Your task to perform on an android device: Open Android settings Image 0: 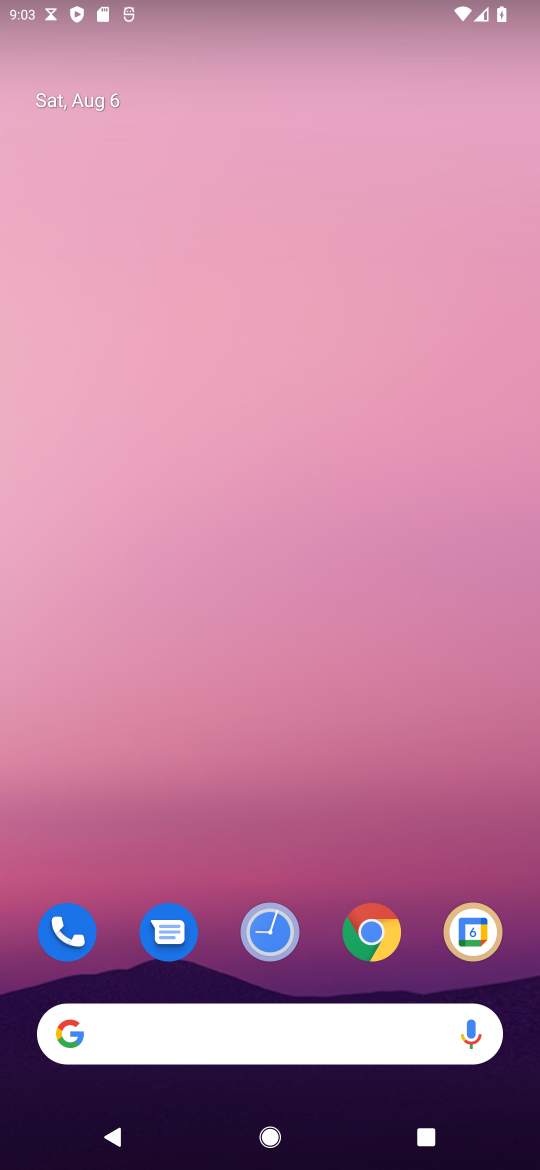
Step 0: drag from (229, 1040) to (254, 460)
Your task to perform on an android device: Open Android settings Image 1: 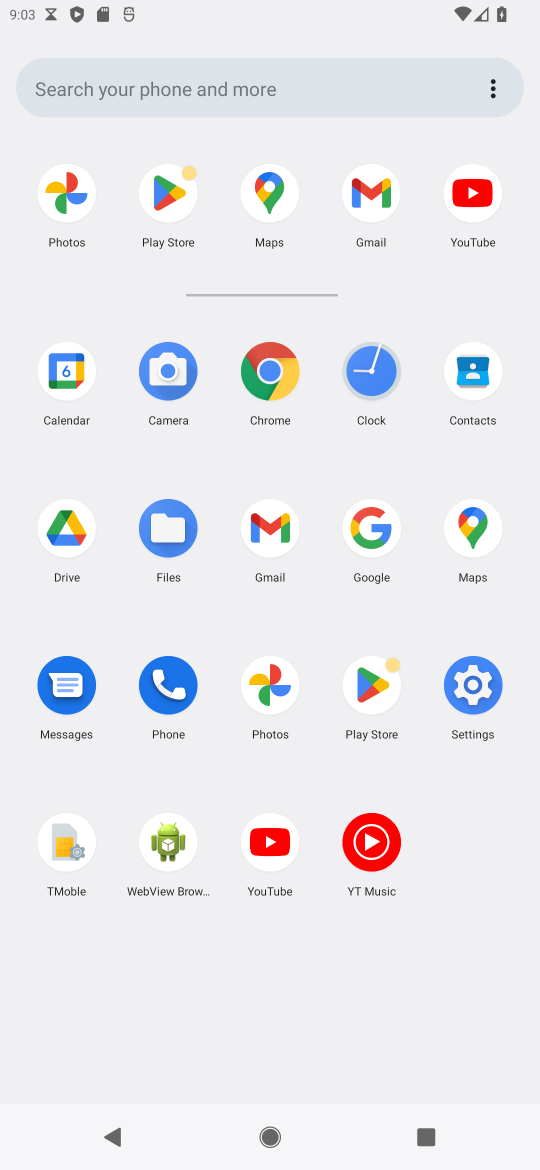
Step 1: click (471, 683)
Your task to perform on an android device: Open Android settings Image 2: 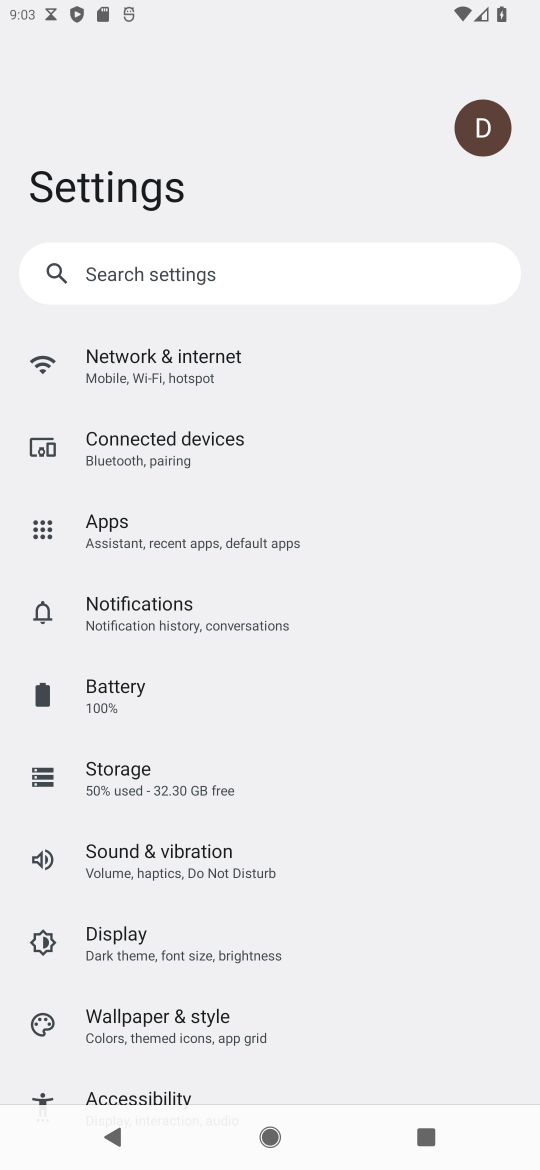
Step 2: task complete